Your task to perform on an android device: Open the web browser Image 0: 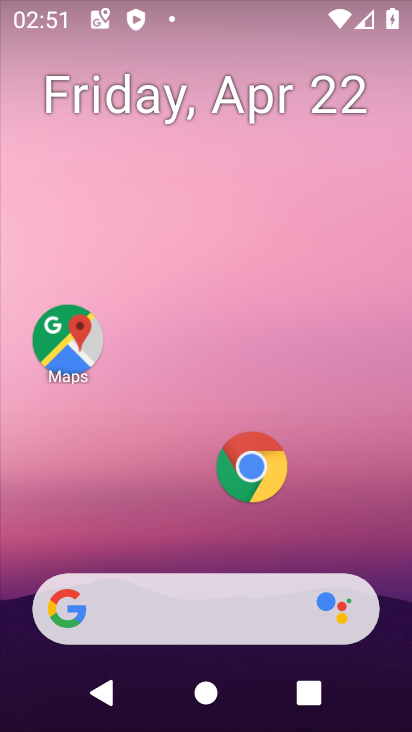
Step 0: click (249, 456)
Your task to perform on an android device: Open the web browser Image 1: 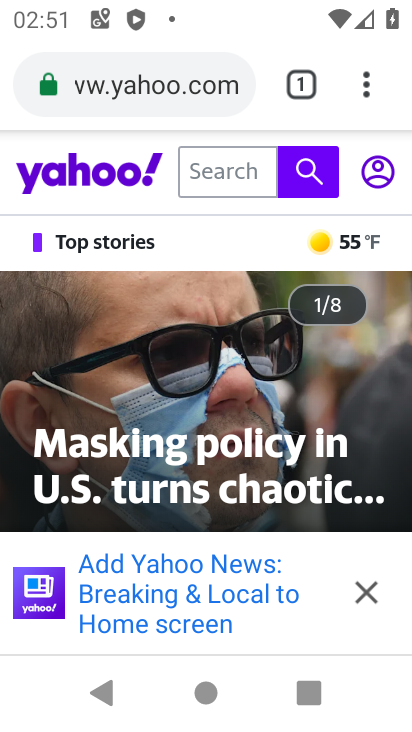
Step 1: click (127, 73)
Your task to perform on an android device: Open the web browser Image 2: 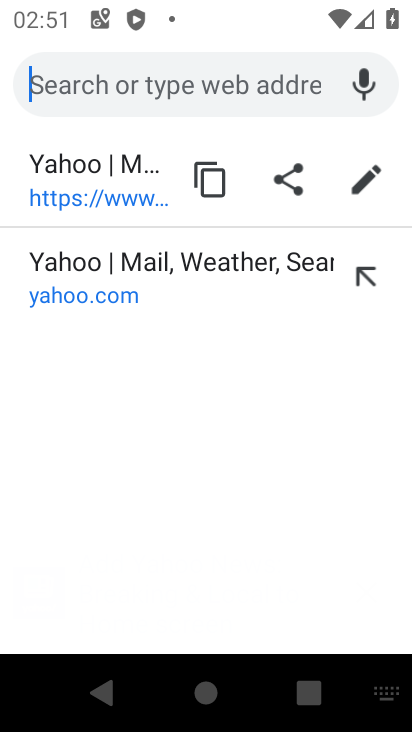
Step 2: task complete